Your task to perform on an android device: toggle wifi Image 0: 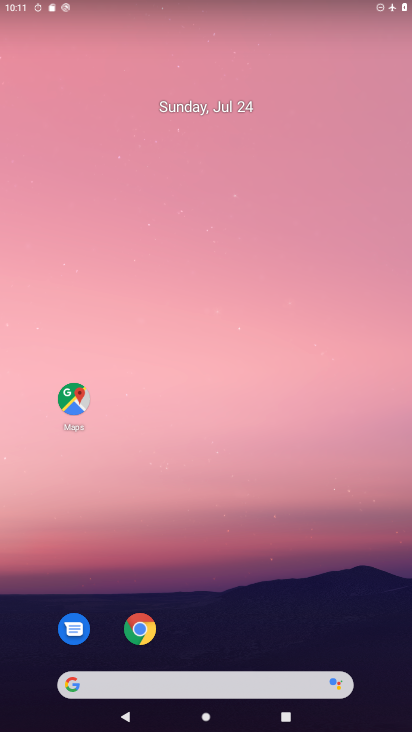
Step 0: drag from (231, 673) to (164, 217)
Your task to perform on an android device: toggle wifi Image 1: 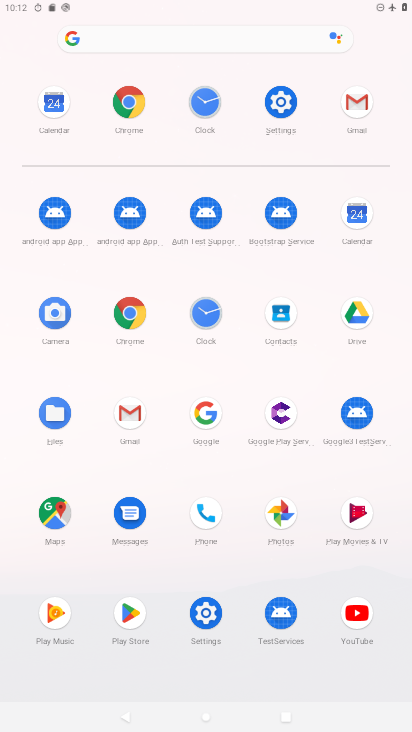
Step 1: click (279, 117)
Your task to perform on an android device: toggle wifi Image 2: 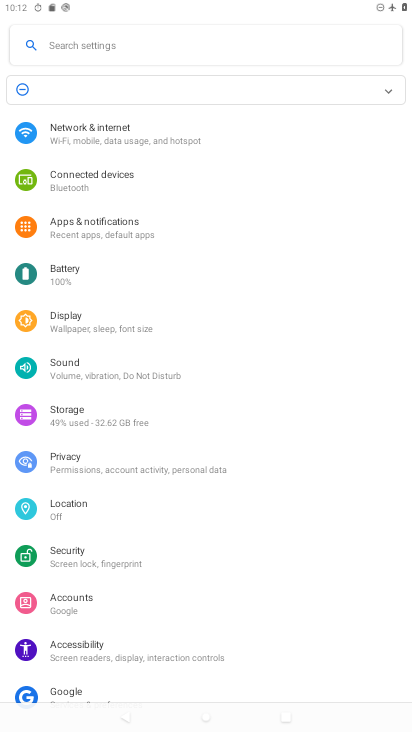
Step 2: click (149, 135)
Your task to perform on an android device: toggle wifi Image 3: 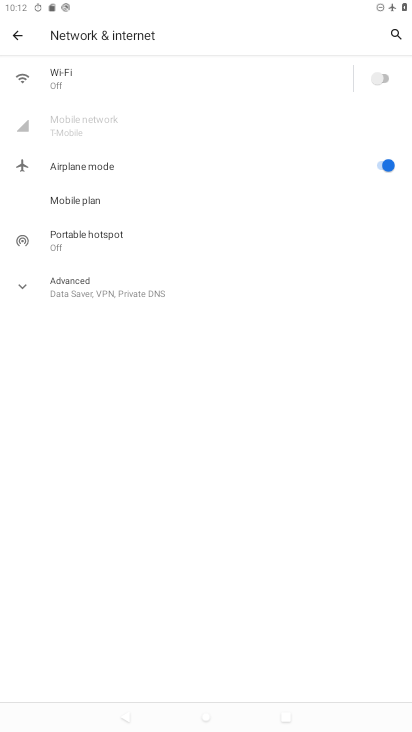
Step 3: click (383, 86)
Your task to perform on an android device: toggle wifi Image 4: 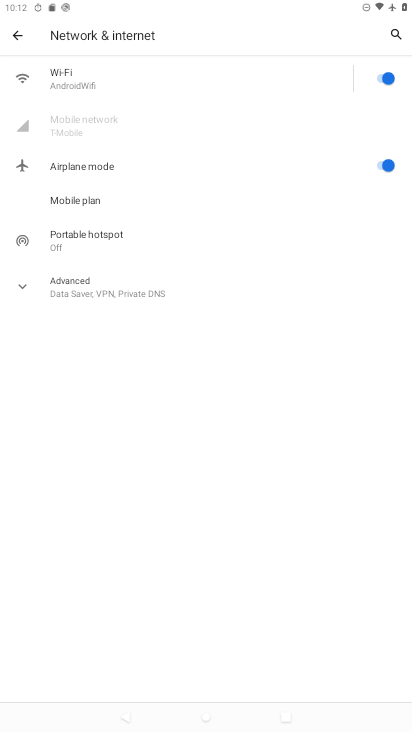
Step 4: task complete